Your task to perform on an android device: Do I have any events this weekend? Image 0: 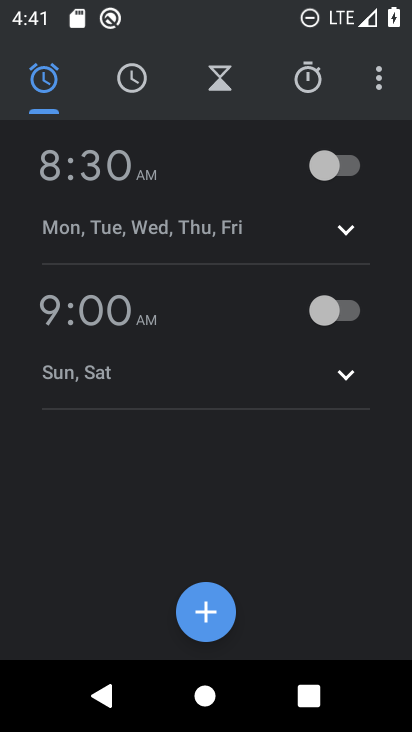
Step 0: press back button
Your task to perform on an android device: Do I have any events this weekend? Image 1: 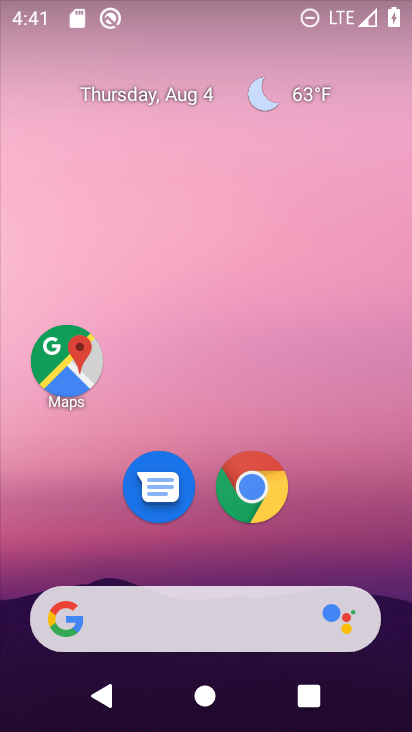
Step 1: drag from (186, 566) to (282, 13)
Your task to perform on an android device: Do I have any events this weekend? Image 2: 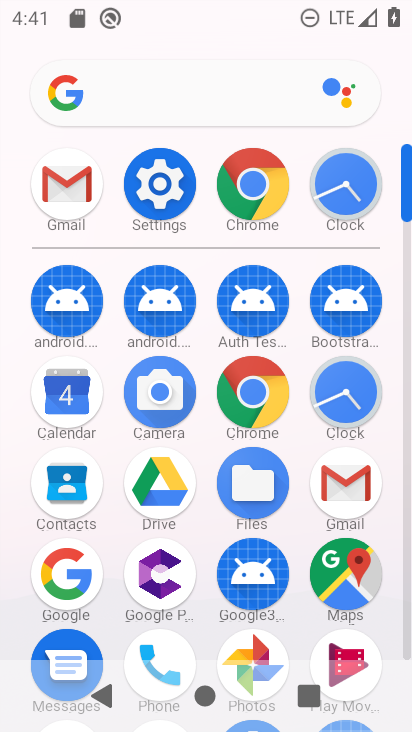
Step 2: click (69, 412)
Your task to perform on an android device: Do I have any events this weekend? Image 3: 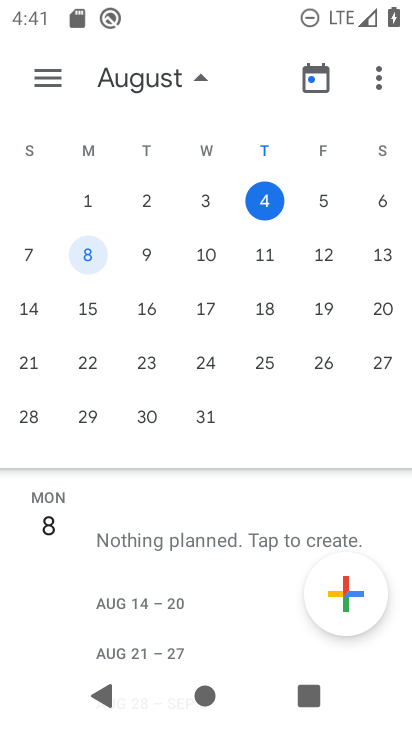
Step 3: click (385, 199)
Your task to perform on an android device: Do I have any events this weekend? Image 4: 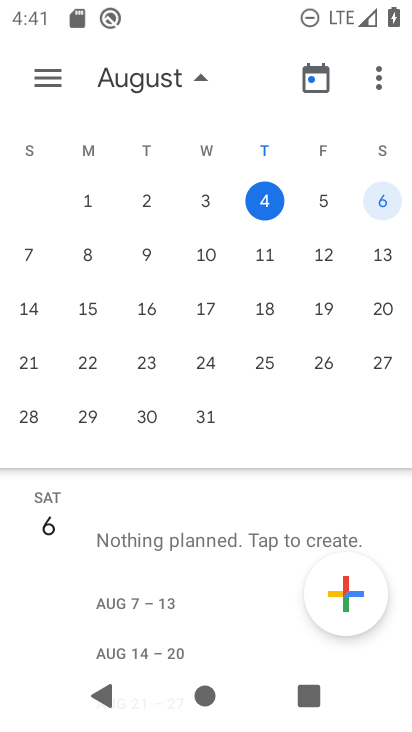
Step 4: task complete